Your task to perform on an android device: turn off improve location accuracy Image 0: 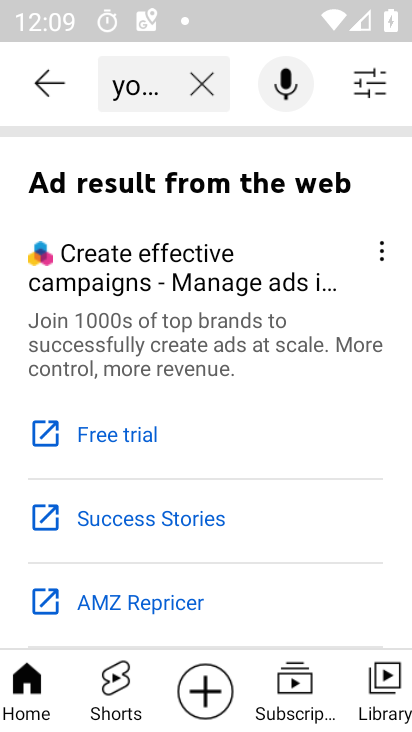
Step 0: press home button
Your task to perform on an android device: turn off improve location accuracy Image 1: 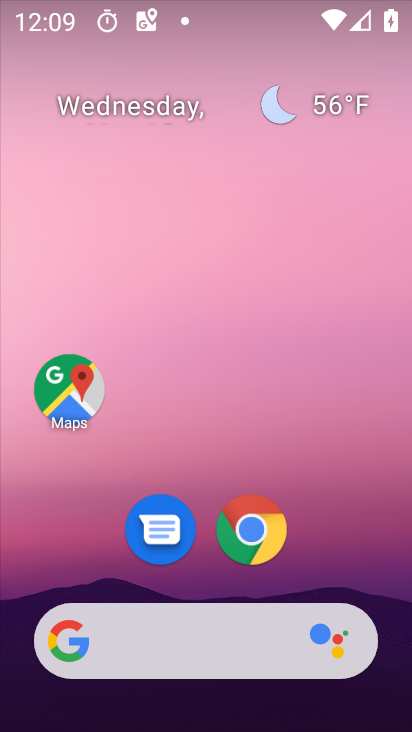
Step 1: drag from (231, 578) to (232, 217)
Your task to perform on an android device: turn off improve location accuracy Image 2: 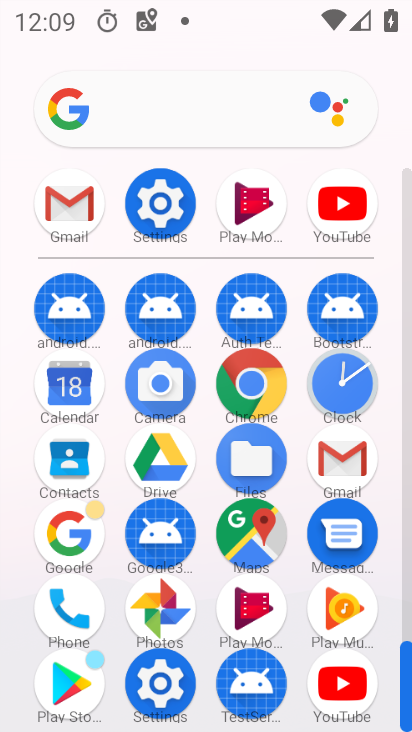
Step 2: click (151, 668)
Your task to perform on an android device: turn off improve location accuracy Image 3: 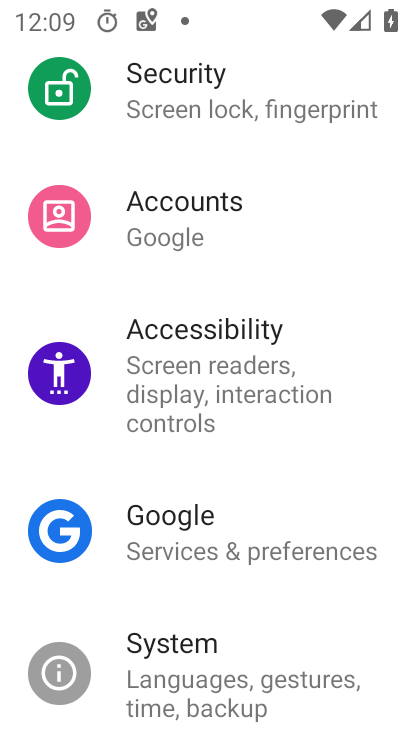
Step 3: drag from (288, 249) to (188, 730)
Your task to perform on an android device: turn off improve location accuracy Image 4: 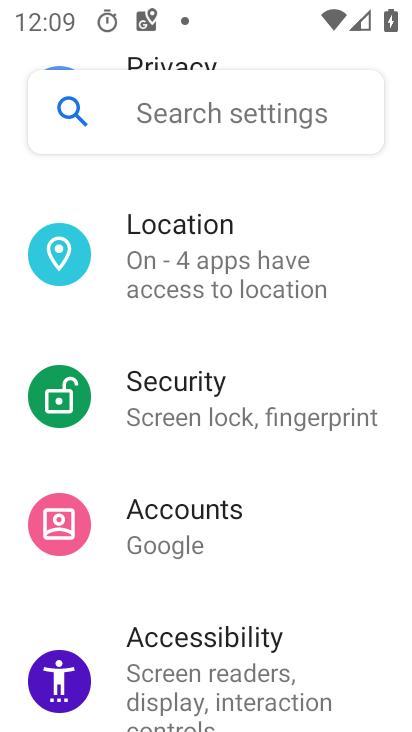
Step 4: click (154, 245)
Your task to perform on an android device: turn off improve location accuracy Image 5: 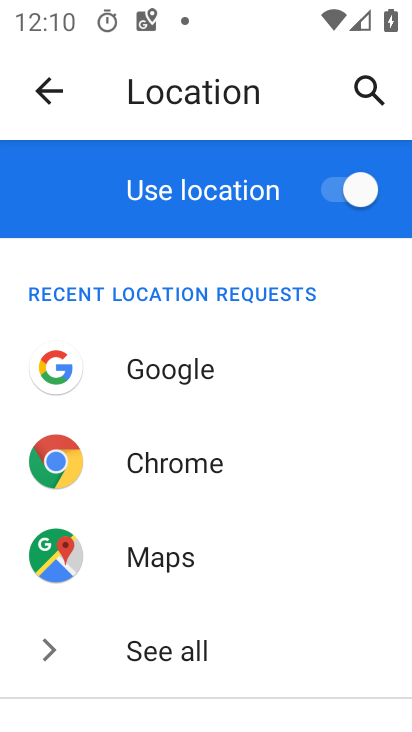
Step 5: drag from (286, 614) to (268, 235)
Your task to perform on an android device: turn off improve location accuracy Image 6: 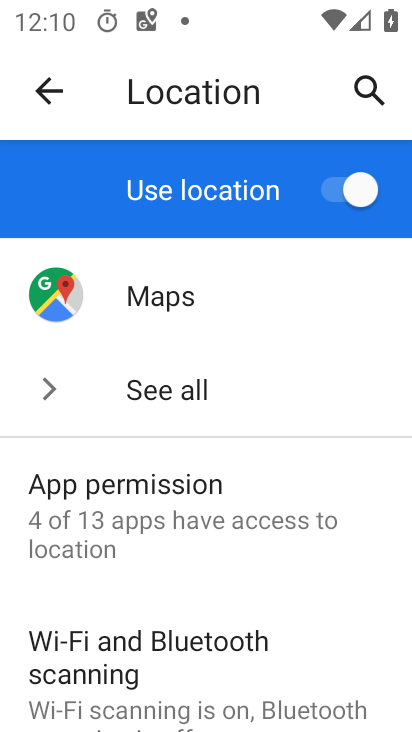
Step 6: drag from (222, 616) to (203, 421)
Your task to perform on an android device: turn off improve location accuracy Image 7: 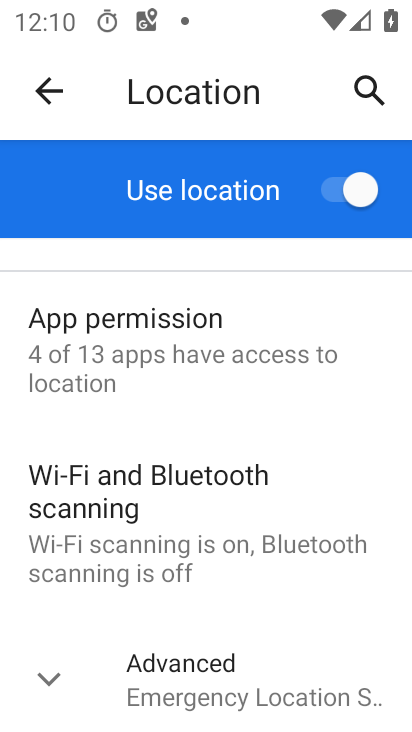
Step 7: drag from (172, 688) to (190, 198)
Your task to perform on an android device: turn off improve location accuracy Image 8: 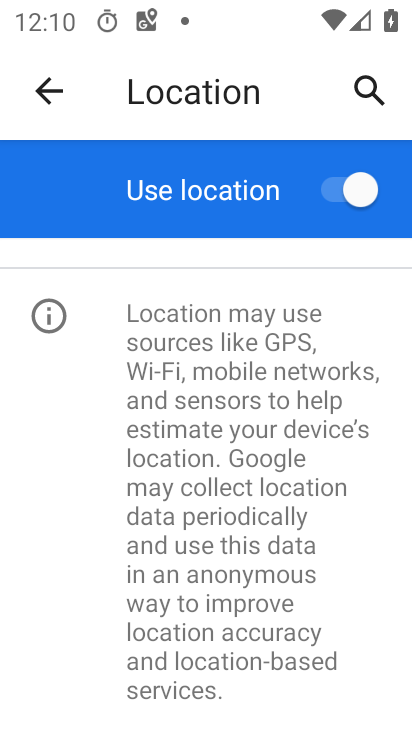
Step 8: drag from (201, 348) to (219, 581)
Your task to perform on an android device: turn off improve location accuracy Image 9: 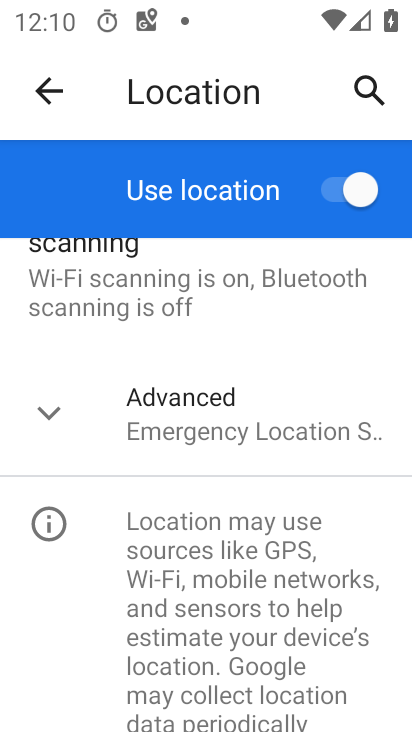
Step 9: click (115, 426)
Your task to perform on an android device: turn off improve location accuracy Image 10: 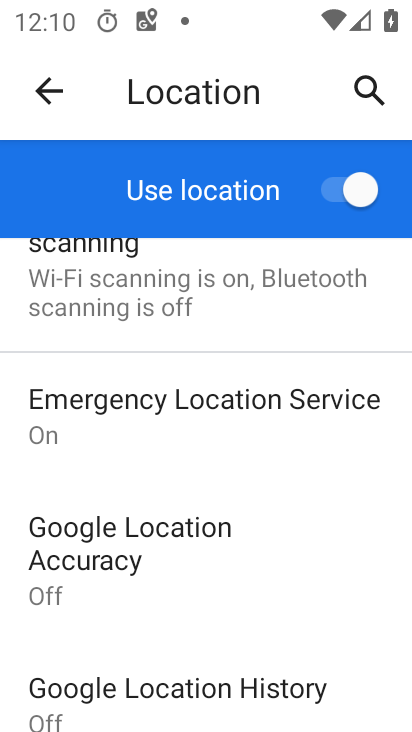
Step 10: task complete